Your task to perform on an android device: turn off airplane mode Image 0: 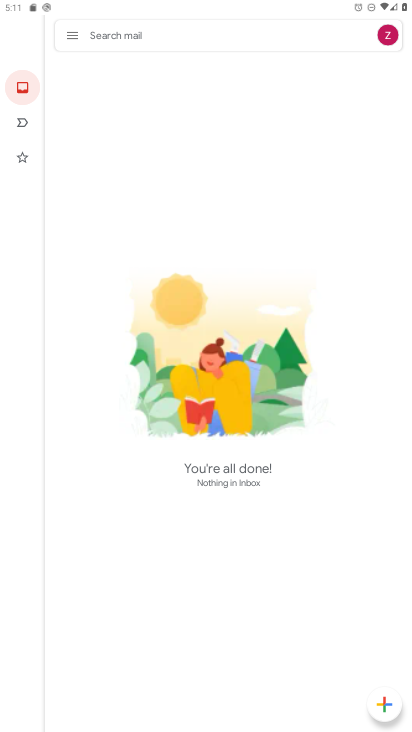
Step 0: press home button
Your task to perform on an android device: turn off airplane mode Image 1: 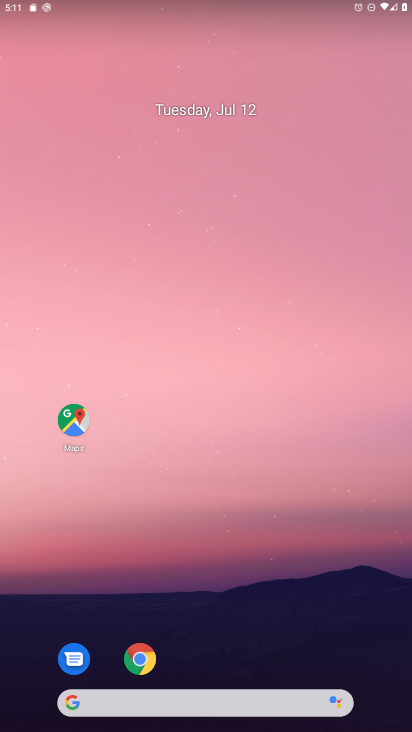
Step 1: drag from (194, 564) to (194, 129)
Your task to perform on an android device: turn off airplane mode Image 2: 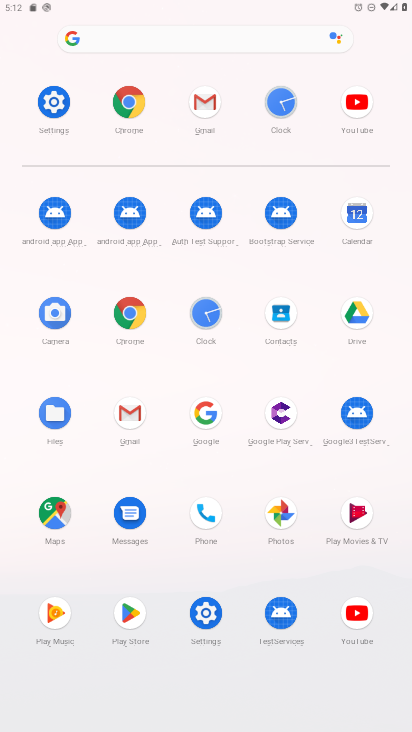
Step 2: click (52, 98)
Your task to perform on an android device: turn off airplane mode Image 3: 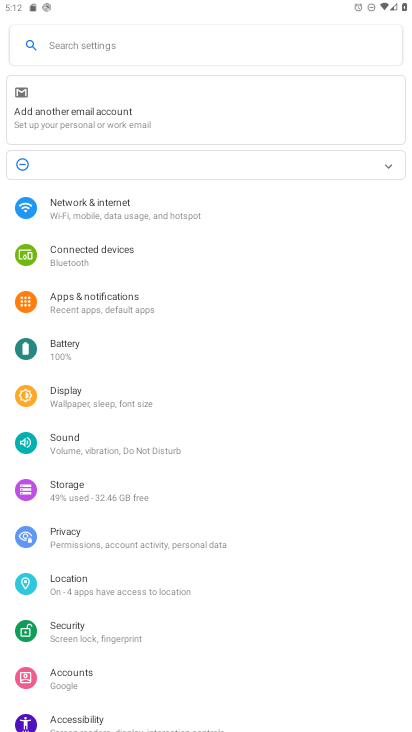
Step 3: click (387, 173)
Your task to perform on an android device: turn off airplane mode Image 4: 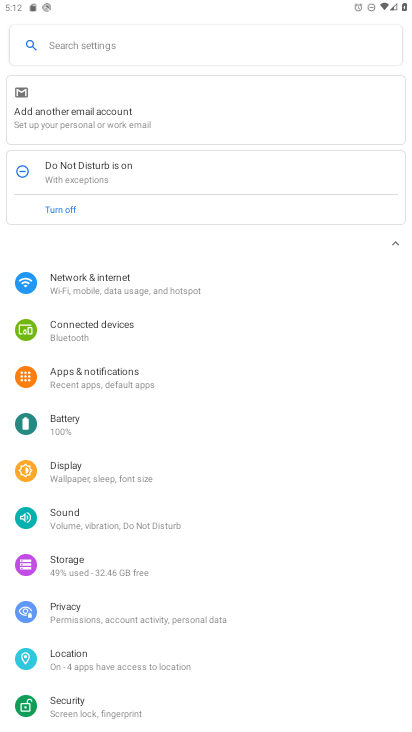
Step 4: click (52, 216)
Your task to perform on an android device: turn off airplane mode Image 5: 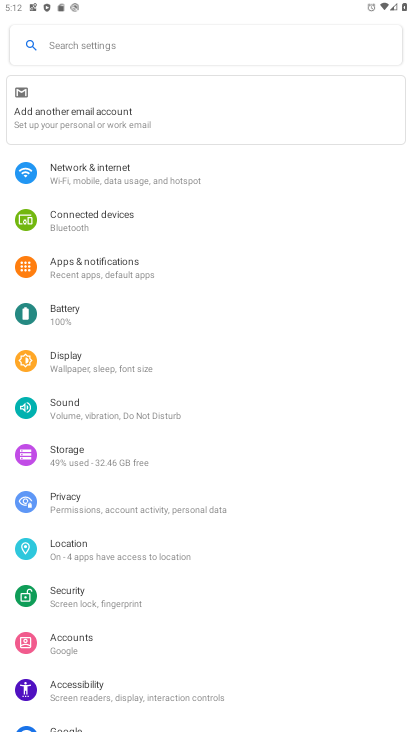
Step 5: task complete